Your task to perform on an android device: star an email in the gmail app Image 0: 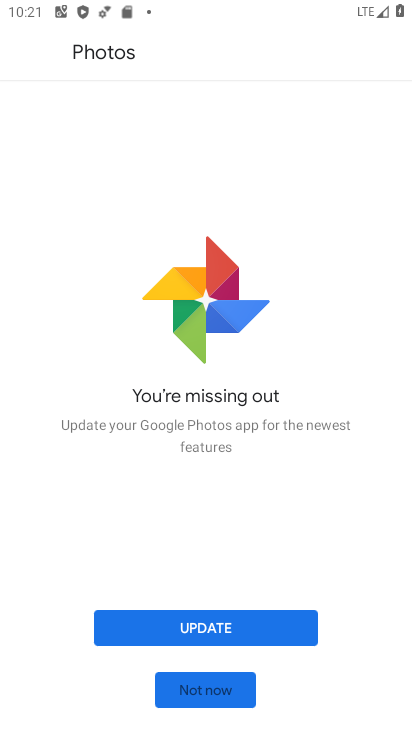
Step 0: click (226, 678)
Your task to perform on an android device: star an email in the gmail app Image 1: 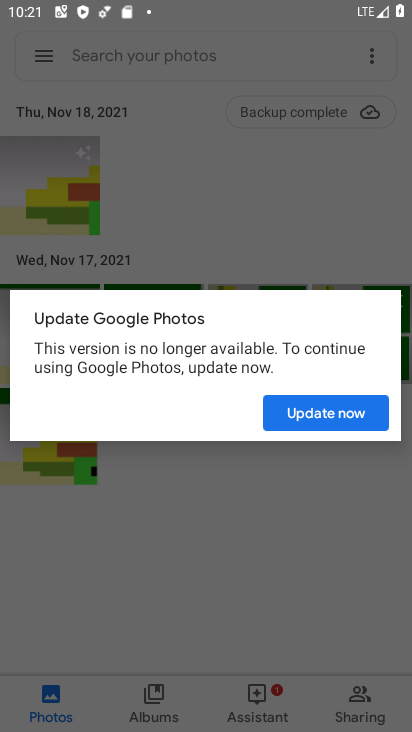
Step 1: press home button
Your task to perform on an android device: star an email in the gmail app Image 2: 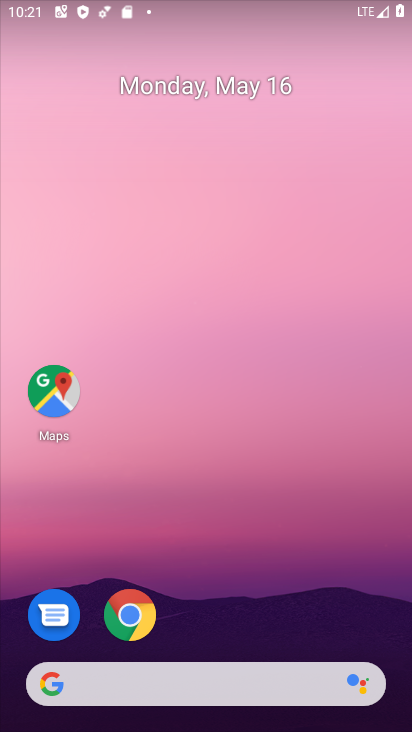
Step 2: drag from (270, 617) to (410, 687)
Your task to perform on an android device: star an email in the gmail app Image 3: 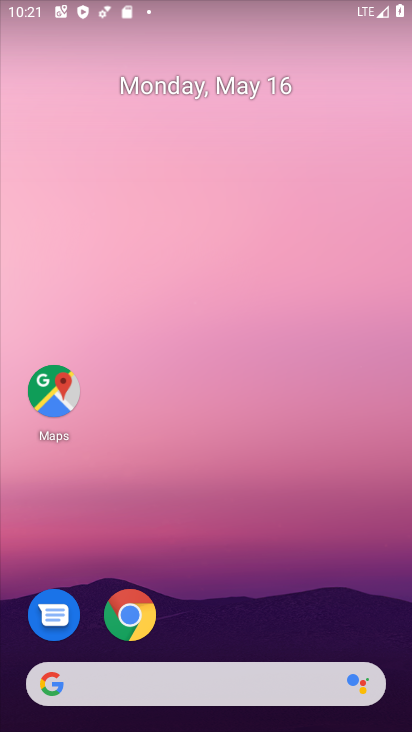
Step 3: drag from (233, 577) to (231, 172)
Your task to perform on an android device: star an email in the gmail app Image 4: 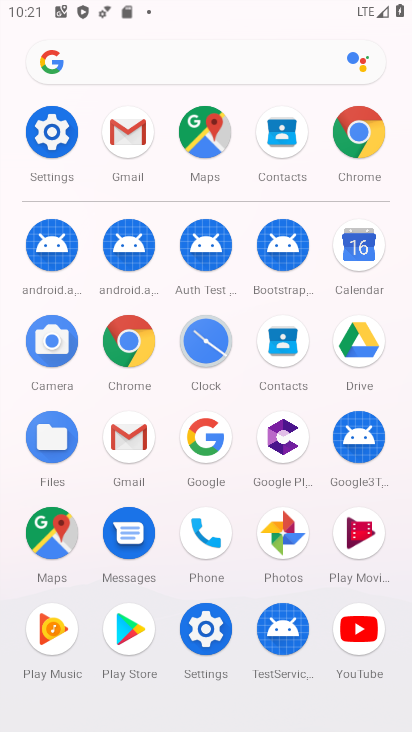
Step 4: click (146, 443)
Your task to perform on an android device: star an email in the gmail app Image 5: 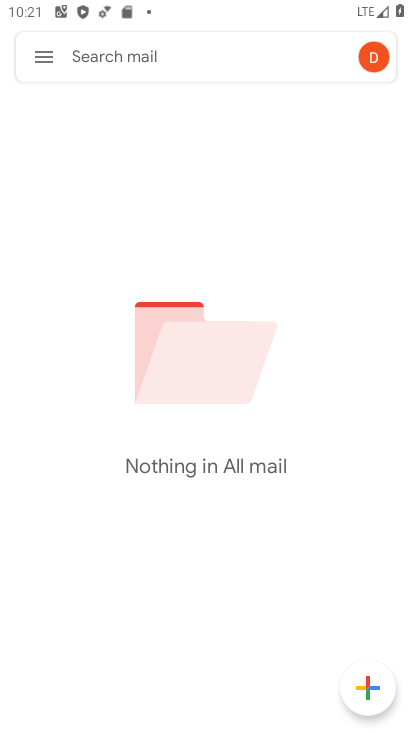
Step 5: click (44, 62)
Your task to perform on an android device: star an email in the gmail app Image 6: 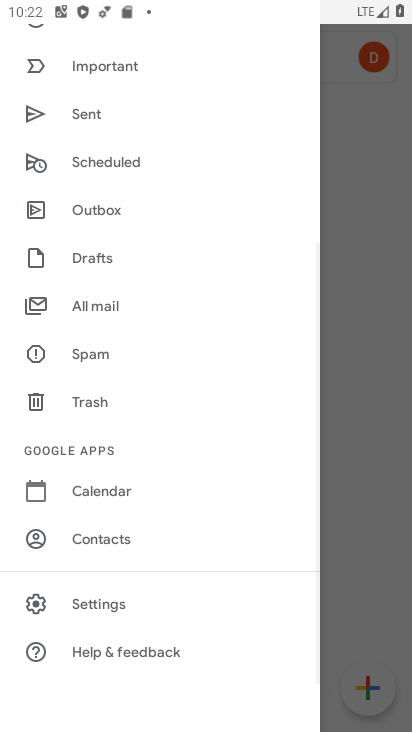
Step 6: task complete